Your task to perform on an android device: open the mobile data screen to see how much data has been used Image 0: 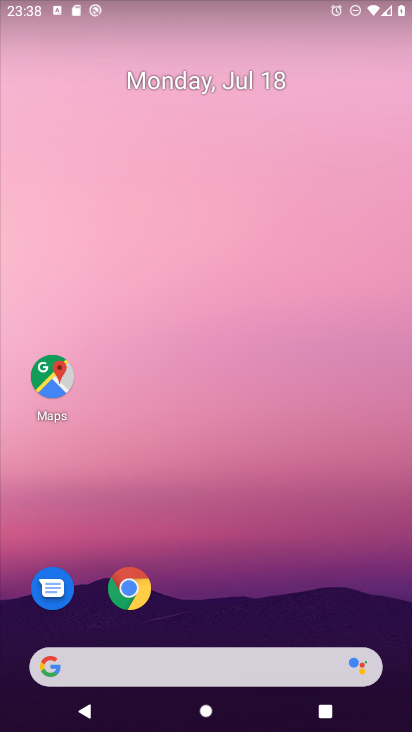
Step 0: drag from (377, 633) to (331, 36)
Your task to perform on an android device: open the mobile data screen to see how much data has been used Image 1: 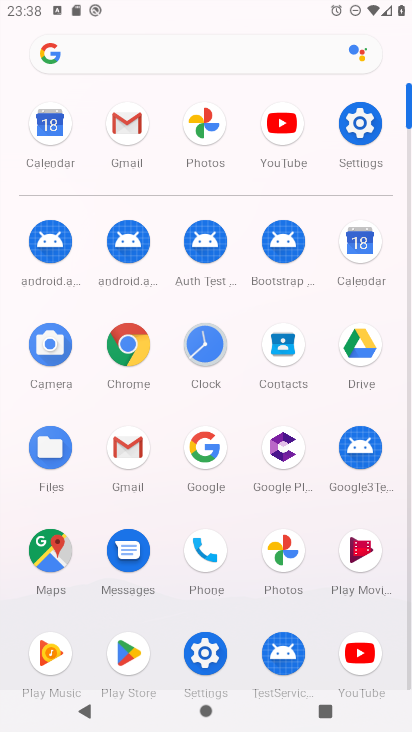
Step 1: click (206, 654)
Your task to perform on an android device: open the mobile data screen to see how much data has been used Image 2: 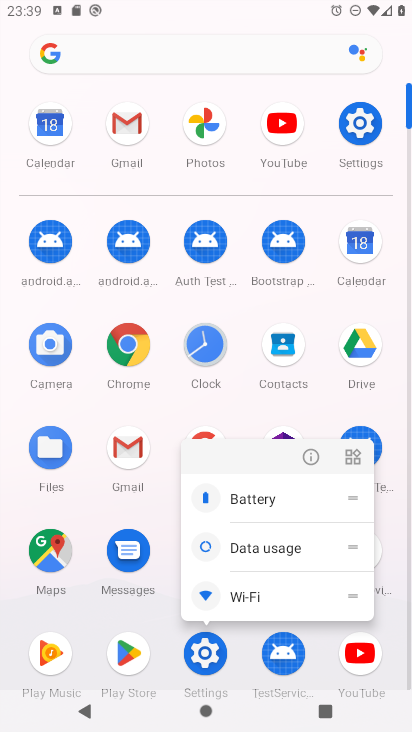
Step 2: click (204, 653)
Your task to perform on an android device: open the mobile data screen to see how much data has been used Image 3: 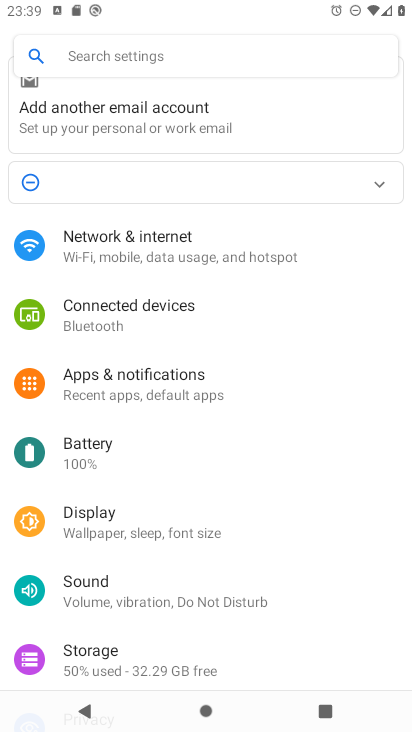
Step 3: click (95, 231)
Your task to perform on an android device: open the mobile data screen to see how much data has been used Image 4: 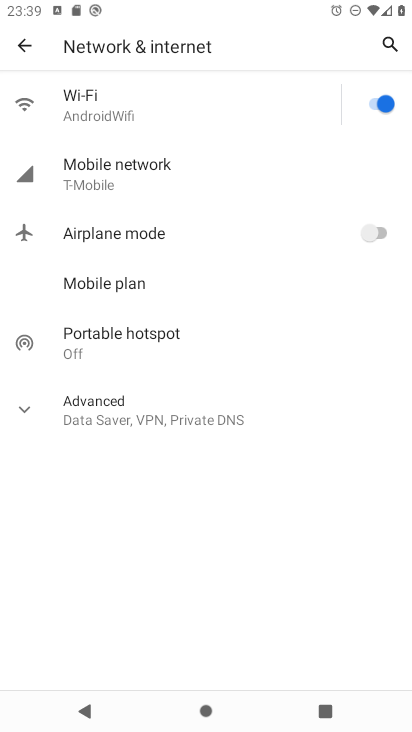
Step 4: click (100, 164)
Your task to perform on an android device: open the mobile data screen to see how much data has been used Image 5: 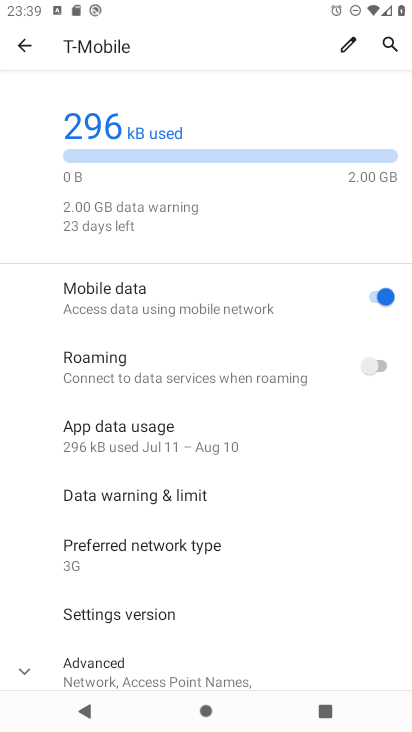
Step 5: task complete